Your task to perform on an android device: Open calendar and show me the fourth week of next month Image 0: 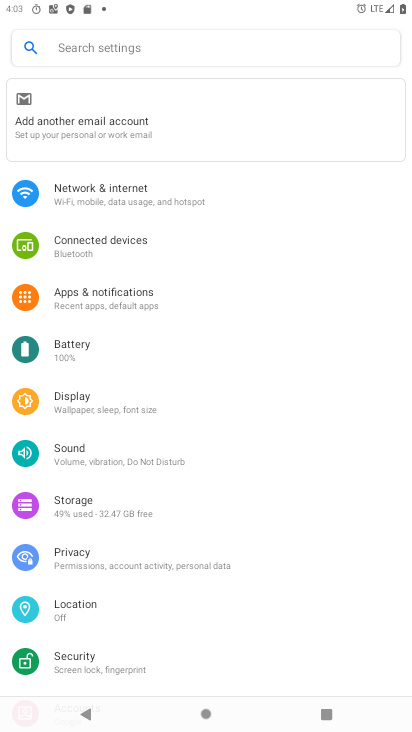
Step 0: press home button
Your task to perform on an android device: Open calendar and show me the fourth week of next month Image 1: 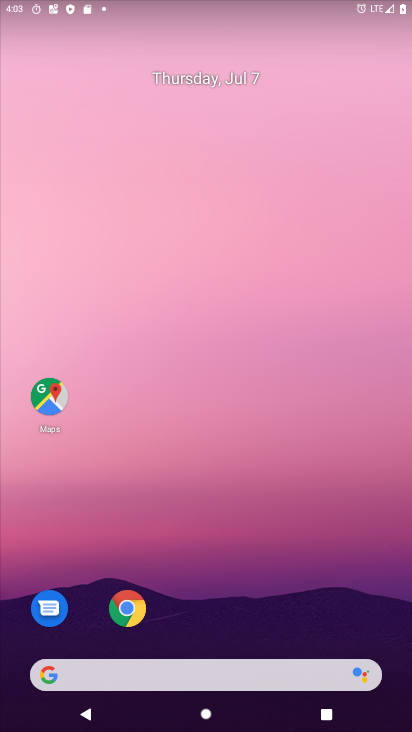
Step 1: drag from (242, 726) to (228, 126)
Your task to perform on an android device: Open calendar and show me the fourth week of next month Image 2: 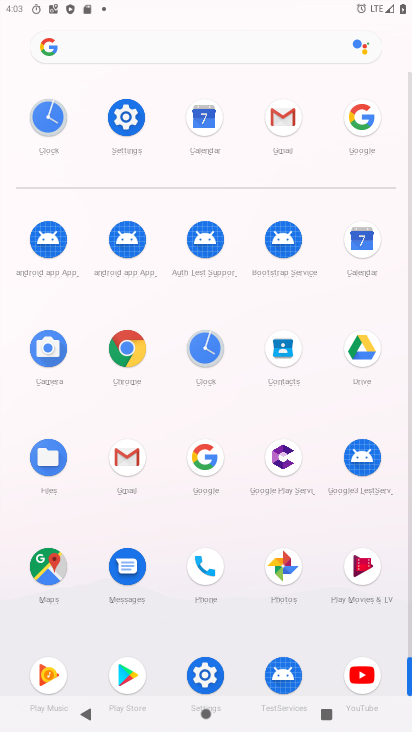
Step 2: click (368, 241)
Your task to perform on an android device: Open calendar and show me the fourth week of next month Image 3: 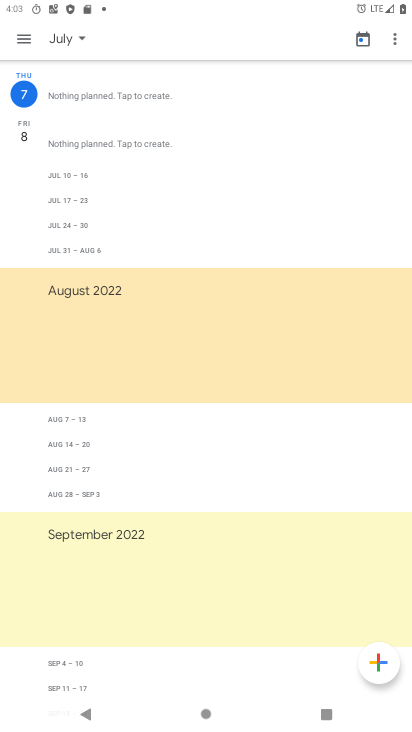
Step 3: click (69, 32)
Your task to perform on an android device: Open calendar and show me the fourth week of next month Image 4: 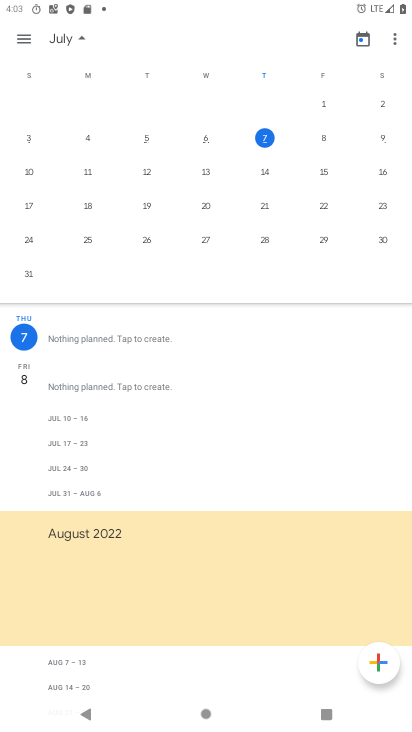
Step 4: drag from (380, 207) to (35, 196)
Your task to perform on an android device: Open calendar and show me the fourth week of next month Image 5: 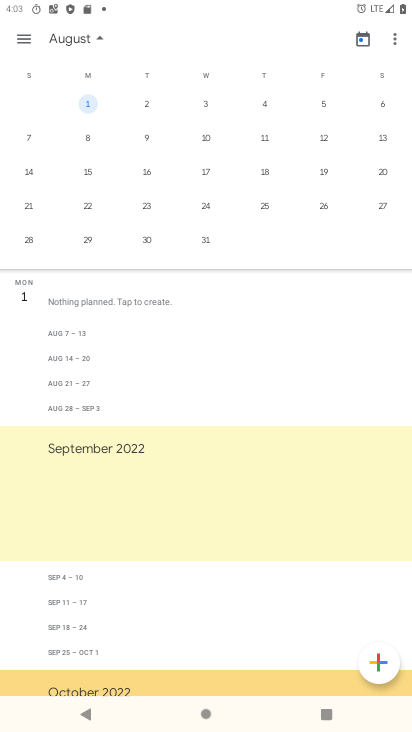
Step 5: click (89, 202)
Your task to perform on an android device: Open calendar and show me the fourth week of next month Image 6: 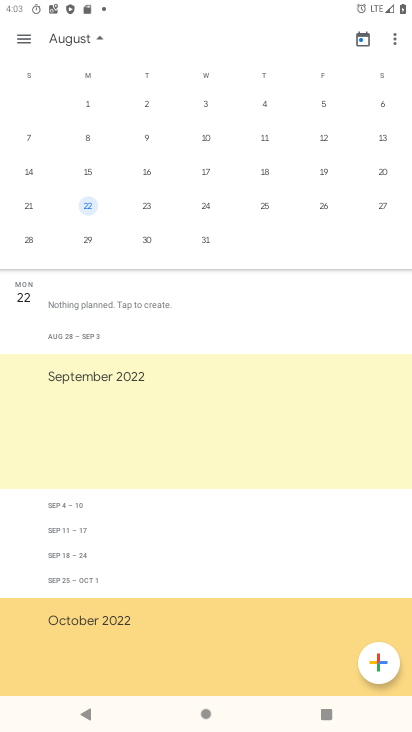
Step 6: click (85, 205)
Your task to perform on an android device: Open calendar and show me the fourth week of next month Image 7: 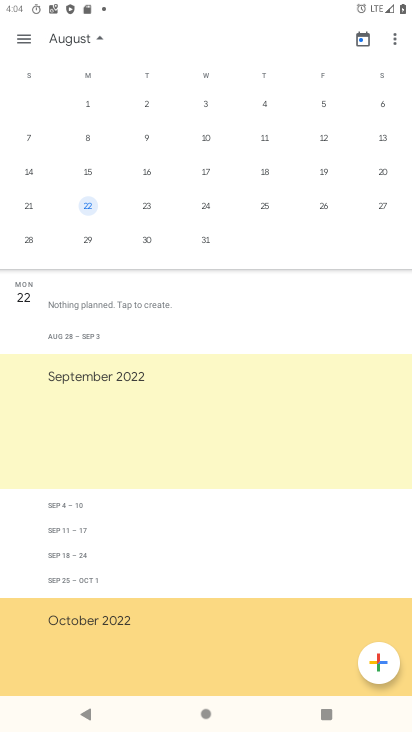
Step 7: click (85, 205)
Your task to perform on an android device: Open calendar and show me the fourth week of next month Image 8: 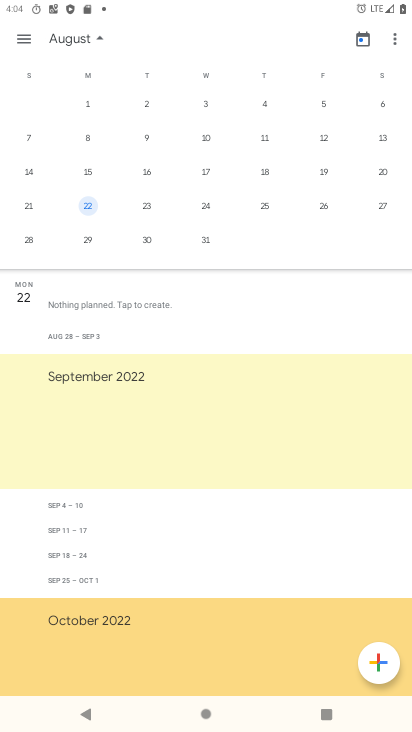
Step 8: click (27, 37)
Your task to perform on an android device: Open calendar and show me the fourth week of next month Image 9: 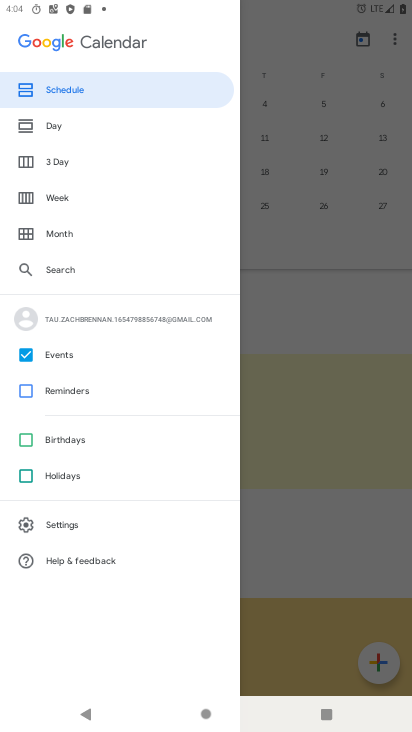
Step 9: click (59, 194)
Your task to perform on an android device: Open calendar and show me the fourth week of next month Image 10: 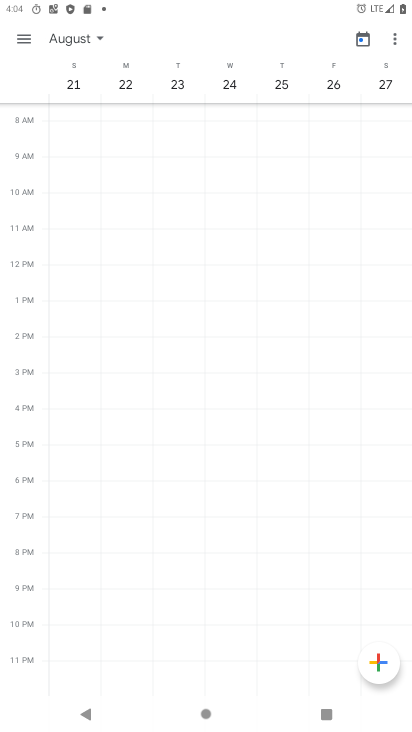
Step 10: task complete